Your task to perform on an android device: Open privacy settings Image 0: 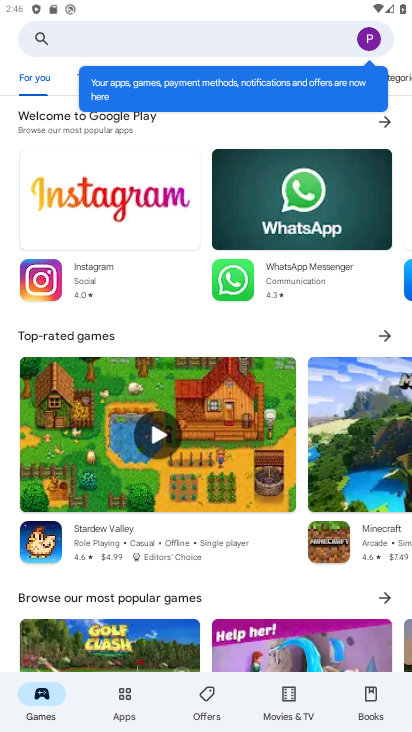
Step 0: press back button
Your task to perform on an android device: Open privacy settings Image 1: 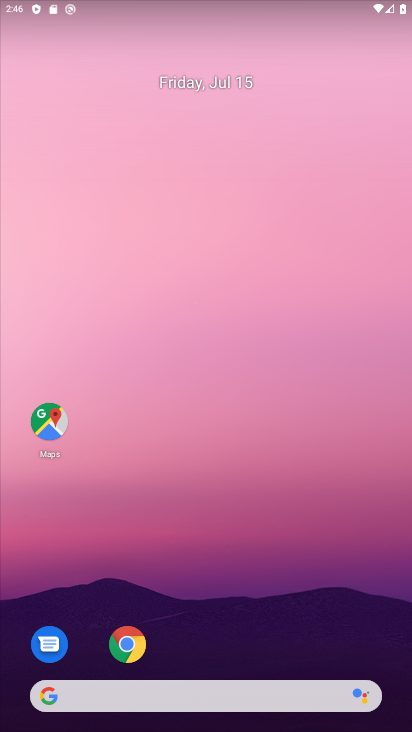
Step 1: click (128, 657)
Your task to perform on an android device: Open privacy settings Image 2: 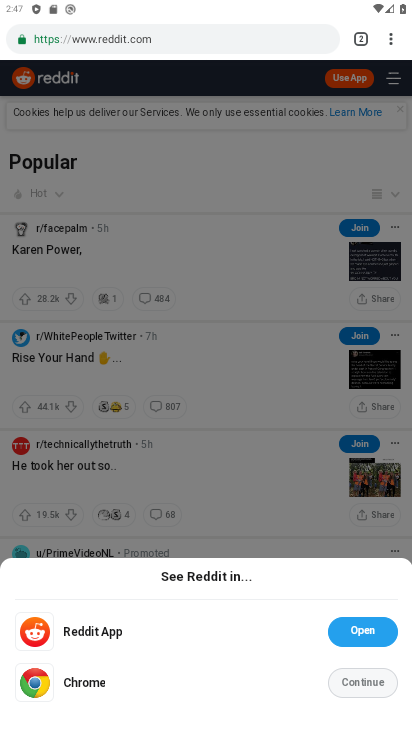
Step 2: drag from (392, 42) to (269, 466)
Your task to perform on an android device: Open privacy settings Image 3: 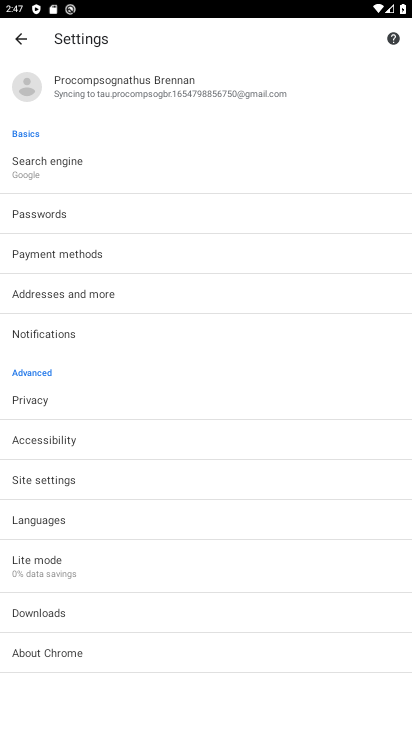
Step 3: click (44, 403)
Your task to perform on an android device: Open privacy settings Image 4: 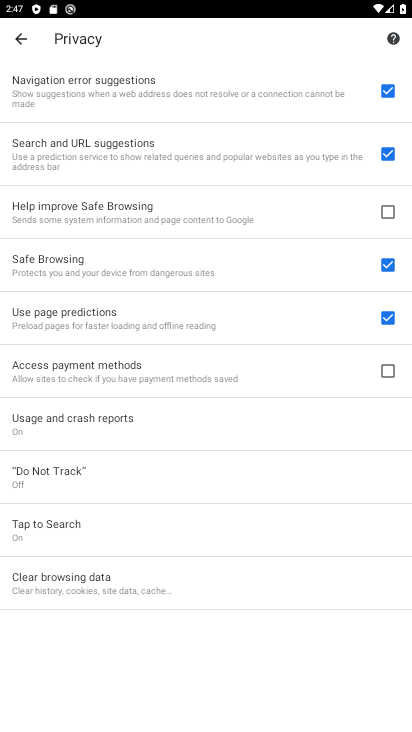
Step 4: task complete